Your task to perform on an android device: toggle data saver in the chrome app Image 0: 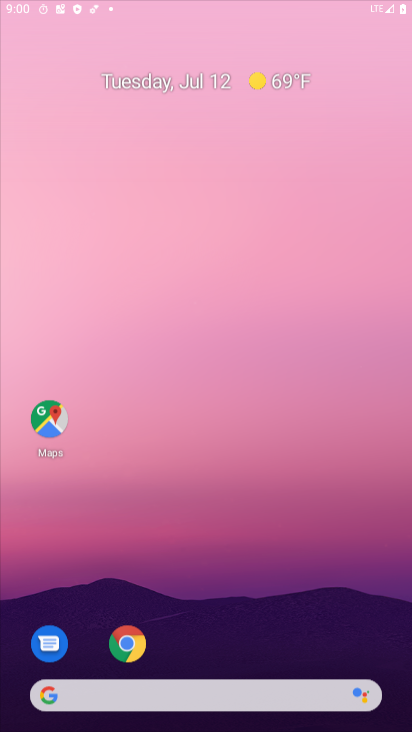
Step 0: press home button
Your task to perform on an android device: toggle data saver in the chrome app Image 1: 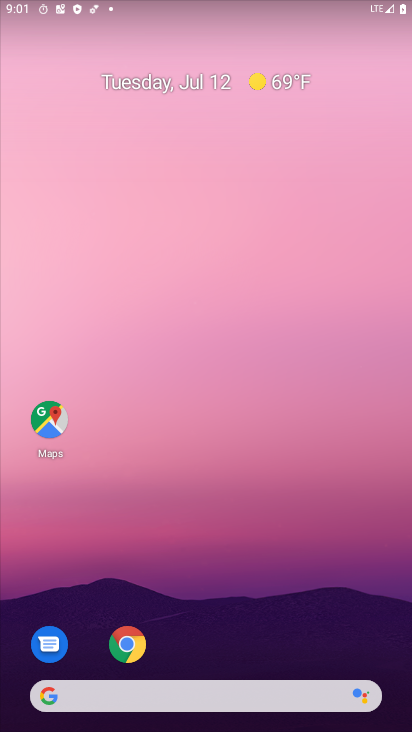
Step 1: click (126, 640)
Your task to perform on an android device: toggle data saver in the chrome app Image 2: 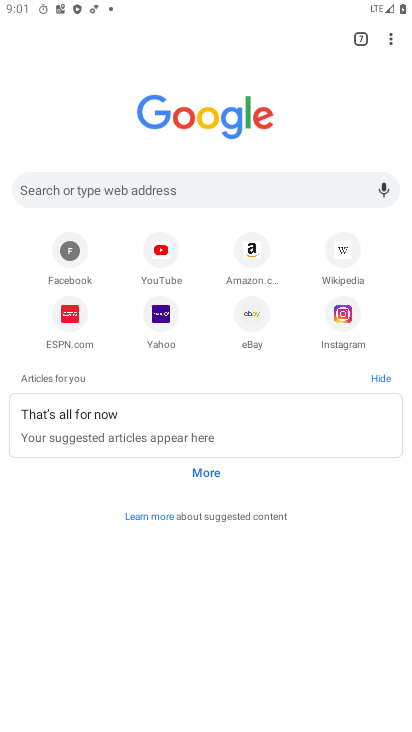
Step 2: click (389, 33)
Your task to perform on an android device: toggle data saver in the chrome app Image 3: 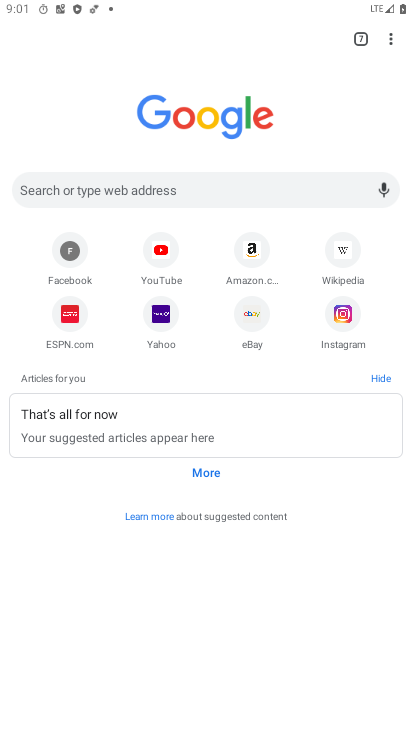
Step 3: click (390, 37)
Your task to perform on an android device: toggle data saver in the chrome app Image 4: 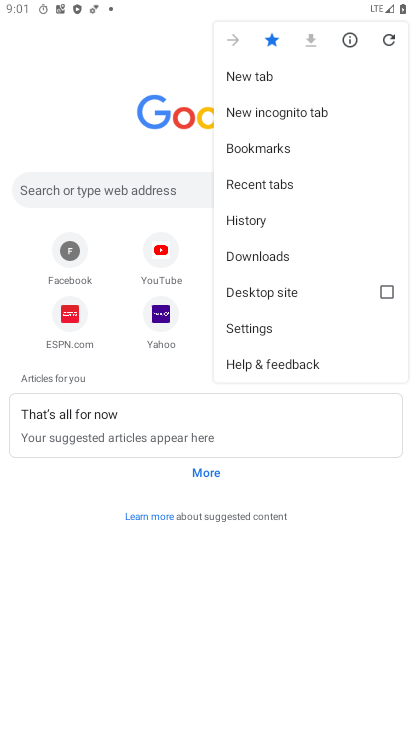
Step 4: click (271, 329)
Your task to perform on an android device: toggle data saver in the chrome app Image 5: 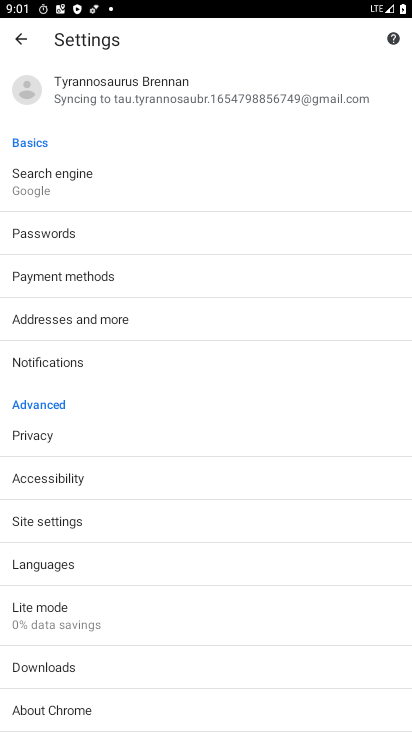
Step 5: click (83, 613)
Your task to perform on an android device: toggle data saver in the chrome app Image 6: 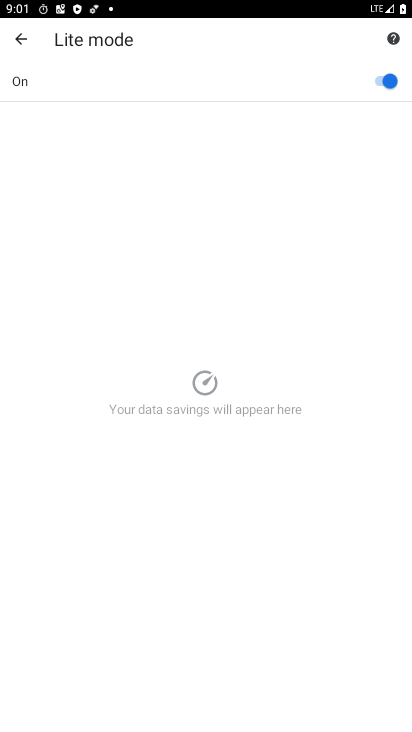
Step 6: task complete